Your task to perform on an android device: View the shopping cart on bestbuy. Search for dell alienware on bestbuy, select the first entry, and add it to the cart. Image 0: 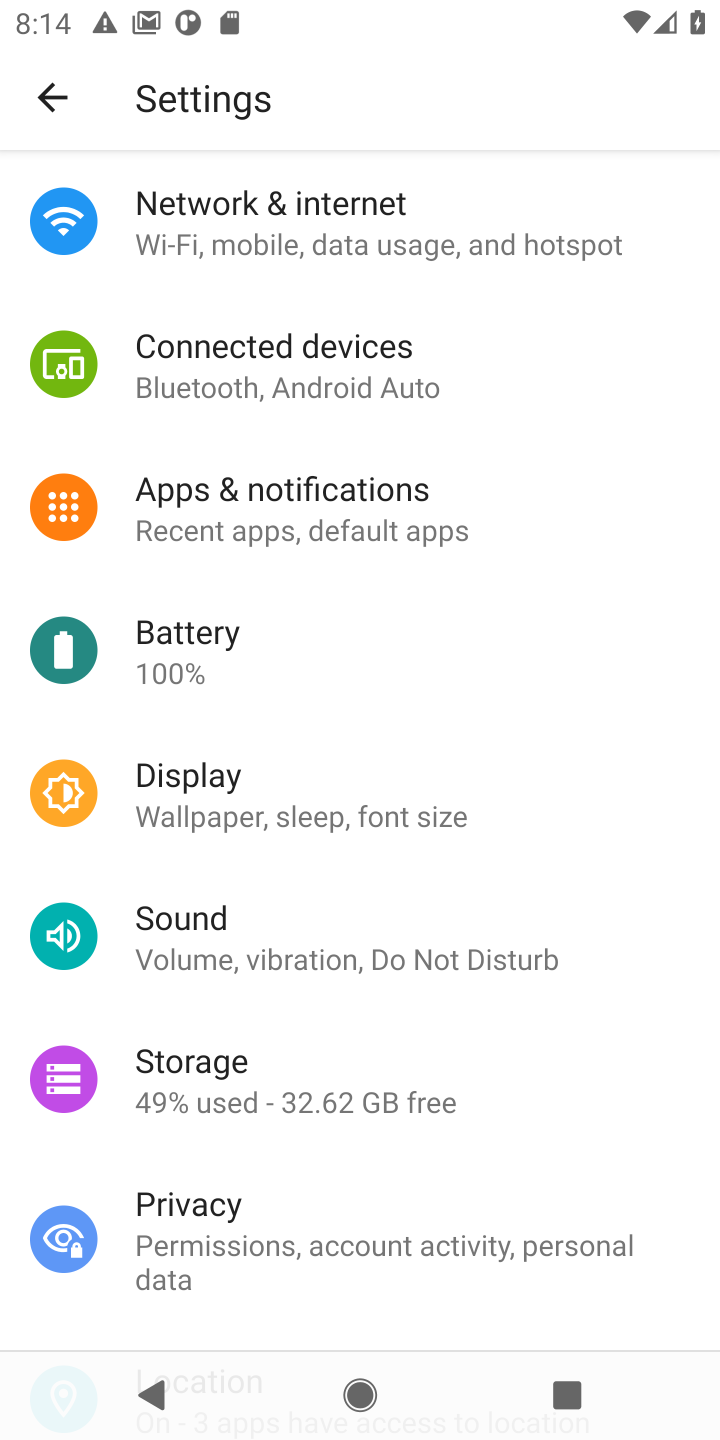
Step 0: press home button
Your task to perform on an android device: View the shopping cart on bestbuy. Search for dell alienware on bestbuy, select the first entry, and add it to the cart. Image 1: 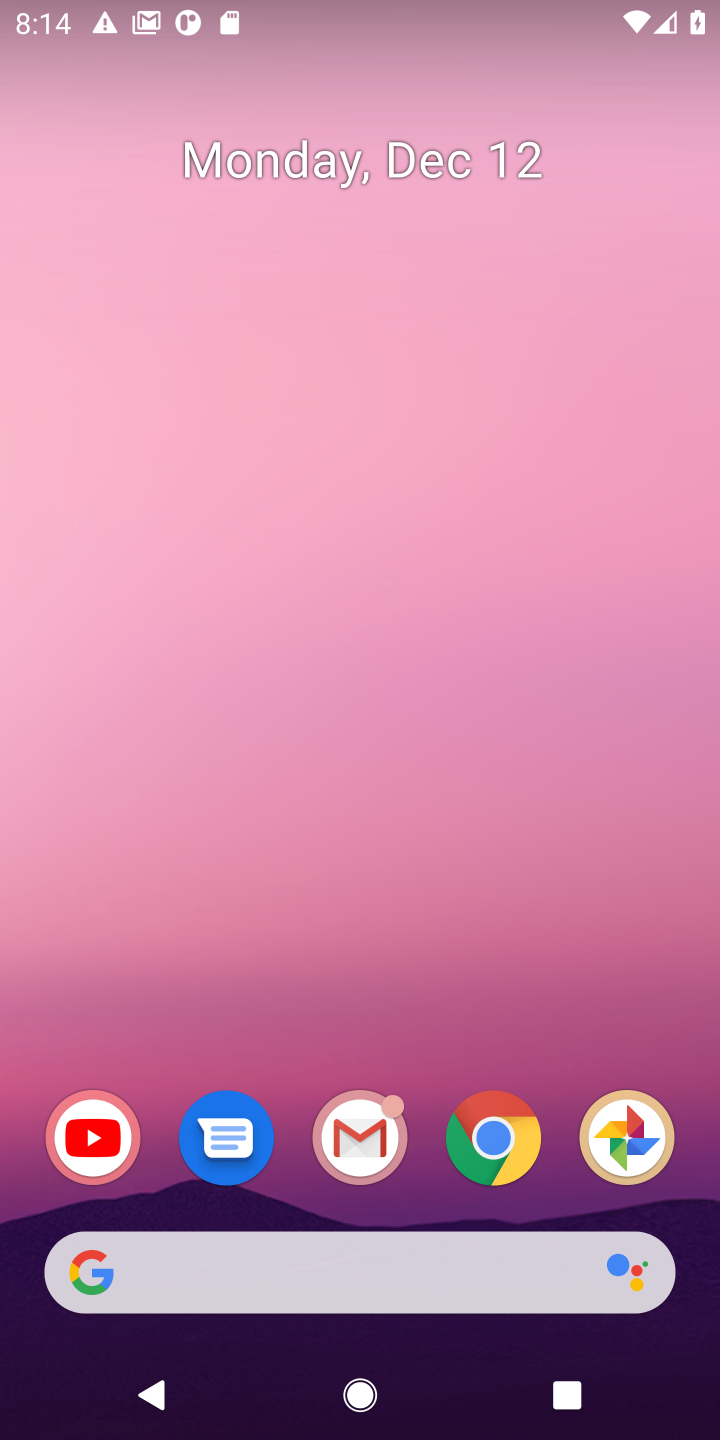
Step 1: drag from (407, 1248) to (474, 46)
Your task to perform on an android device: View the shopping cart on bestbuy. Search for dell alienware on bestbuy, select the first entry, and add it to the cart. Image 2: 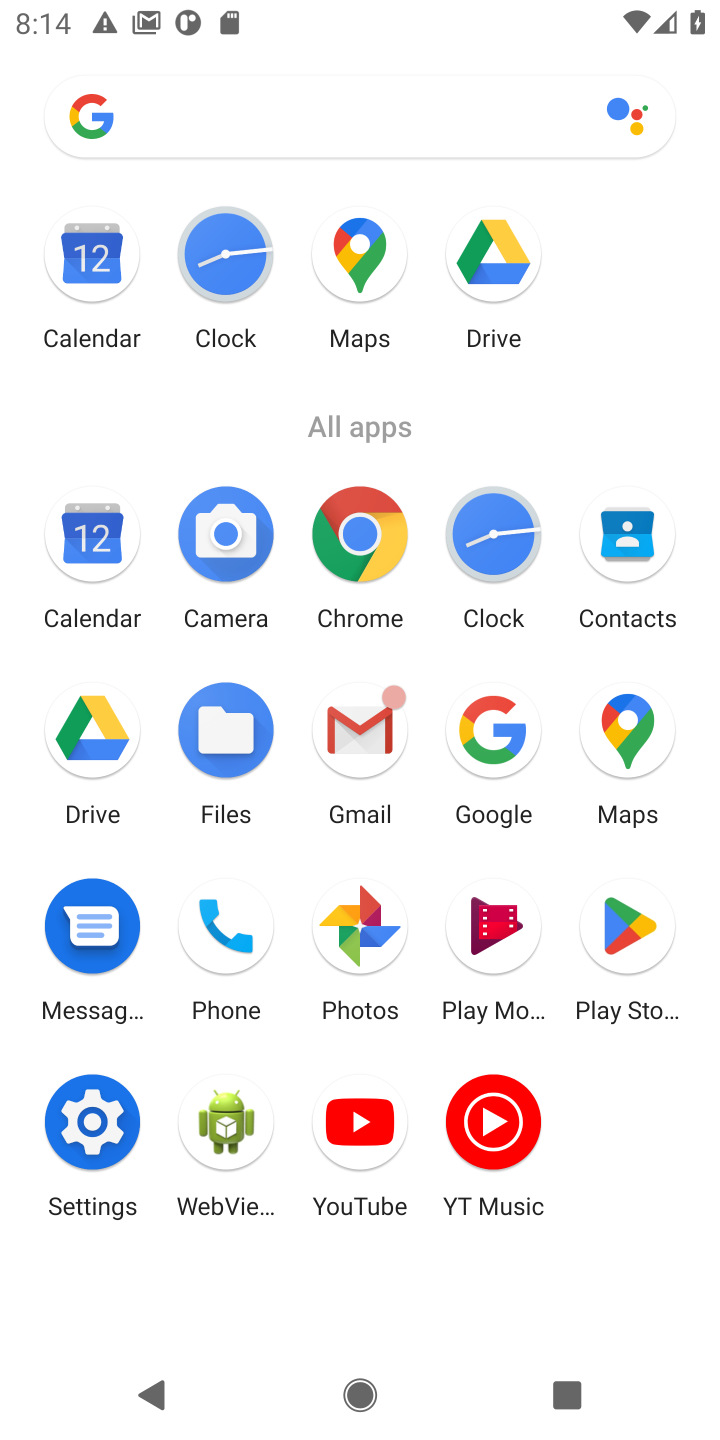
Step 2: click (496, 726)
Your task to perform on an android device: View the shopping cart on bestbuy. Search for dell alienware on bestbuy, select the first entry, and add it to the cart. Image 3: 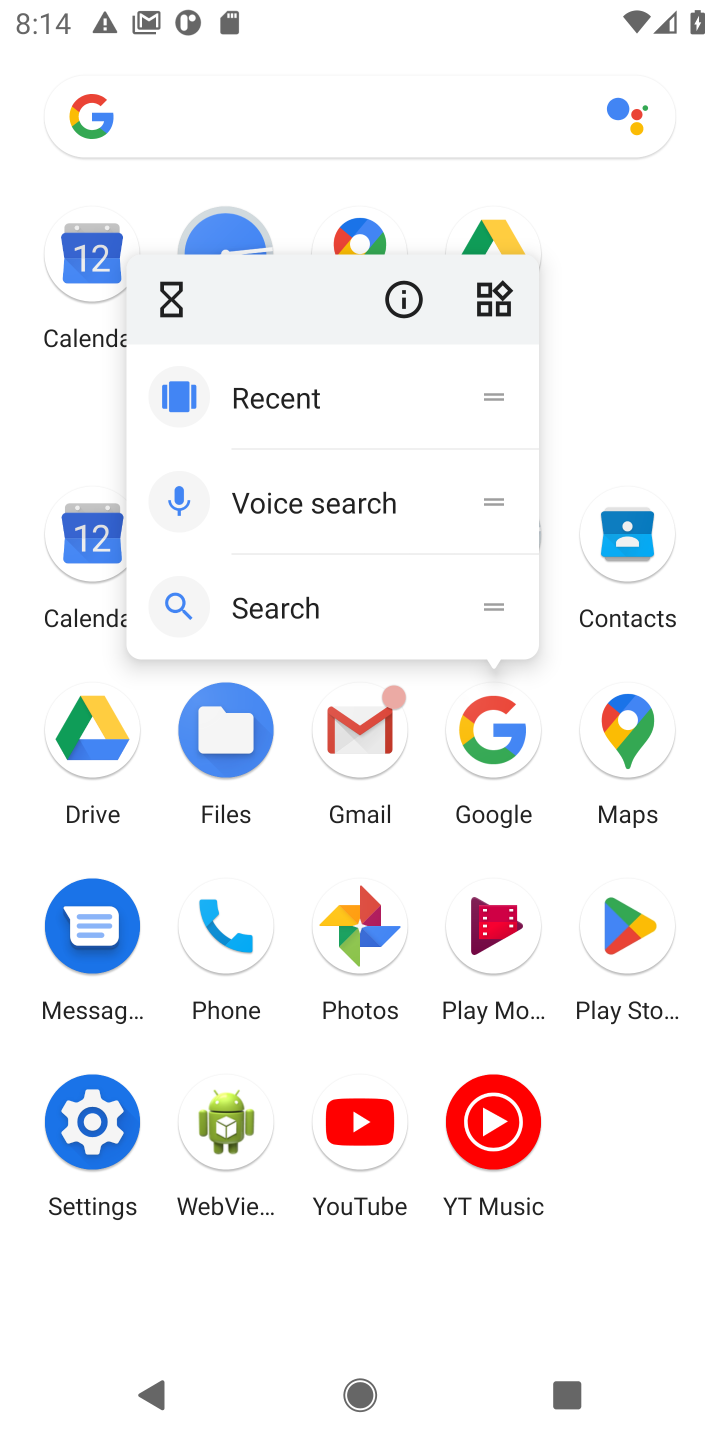
Step 3: click (500, 746)
Your task to perform on an android device: View the shopping cart on bestbuy. Search for dell alienware on bestbuy, select the first entry, and add it to the cart. Image 4: 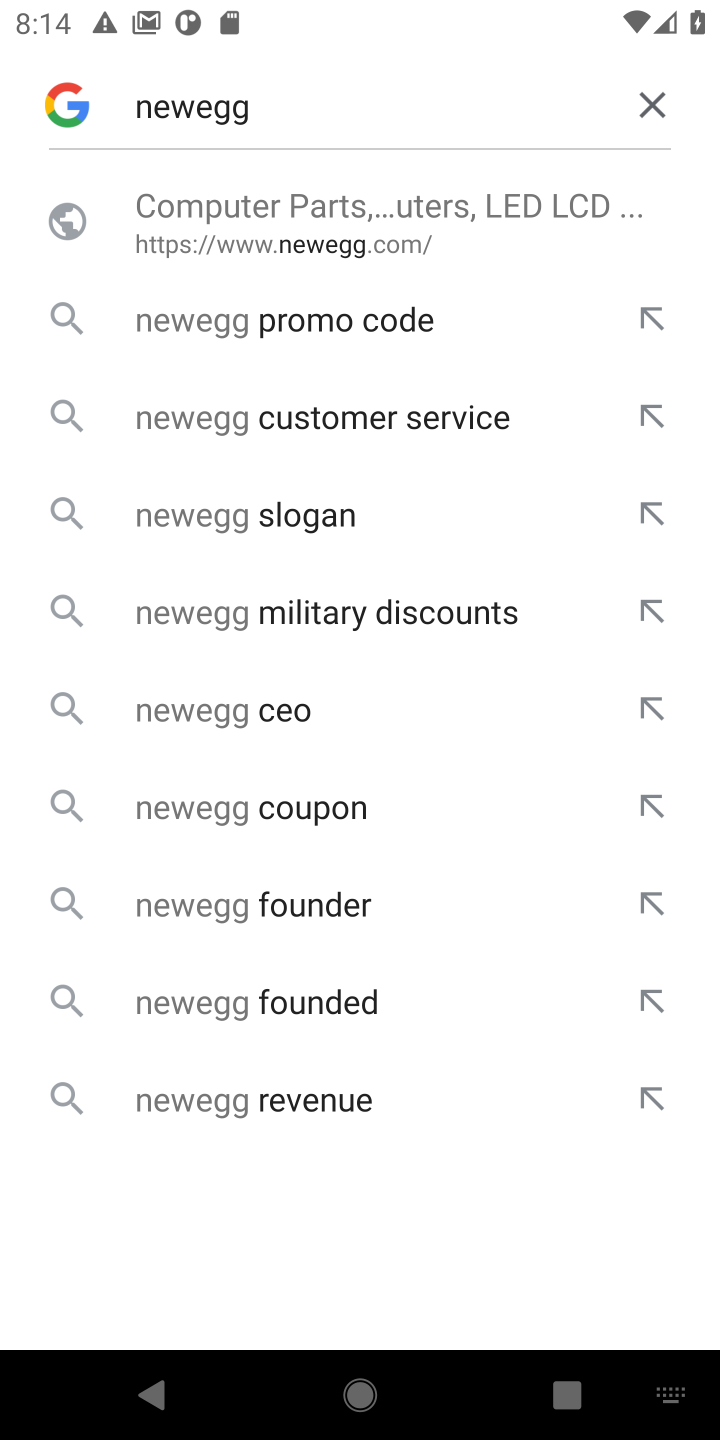
Step 4: click (663, 107)
Your task to perform on an android device: View the shopping cart on bestbuy. Search for dell alienware on bestbuy, select the first entry, and add it to the cart. Image 5: 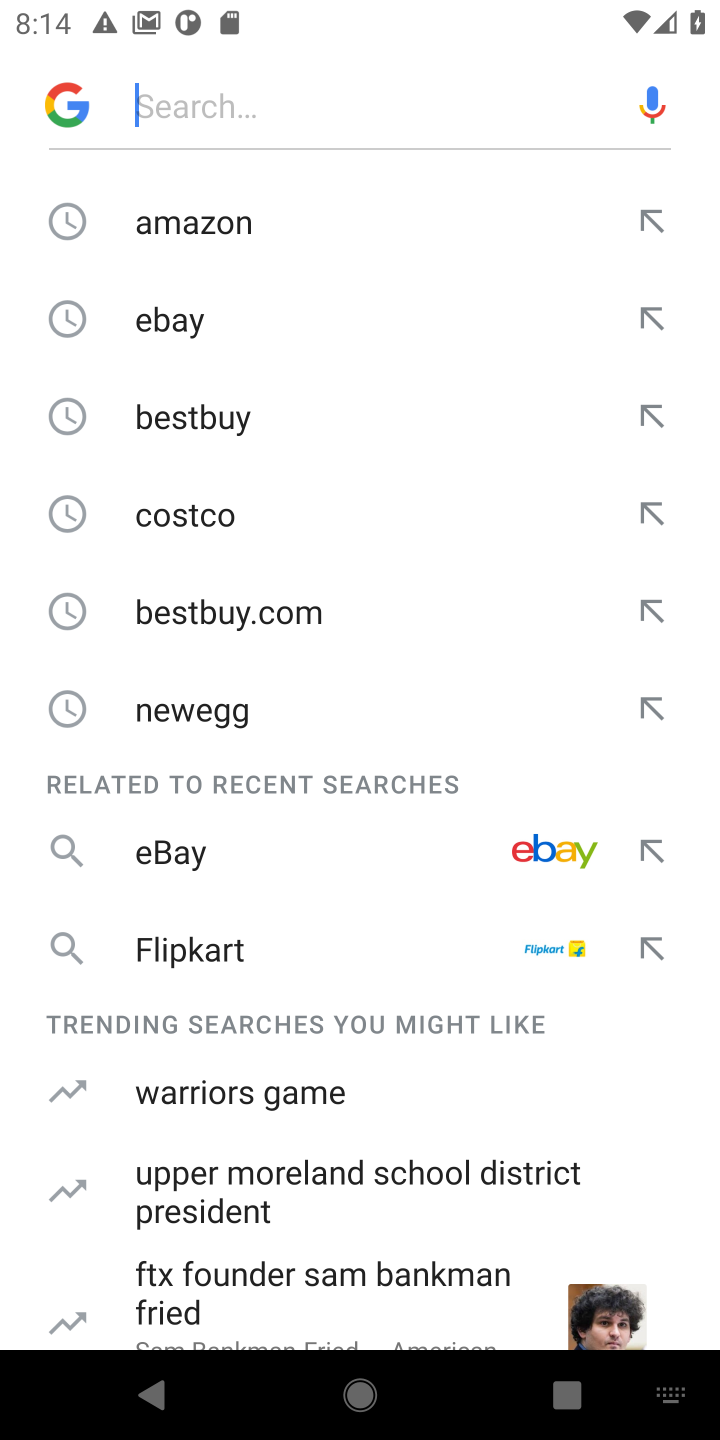
Step 5: click (186, 117)
Your task to perform on an android device: View the shopping cart on bestbuy. Search for dell alienware on bestbuy, select the first entry, and add it to the cart. Image 6: 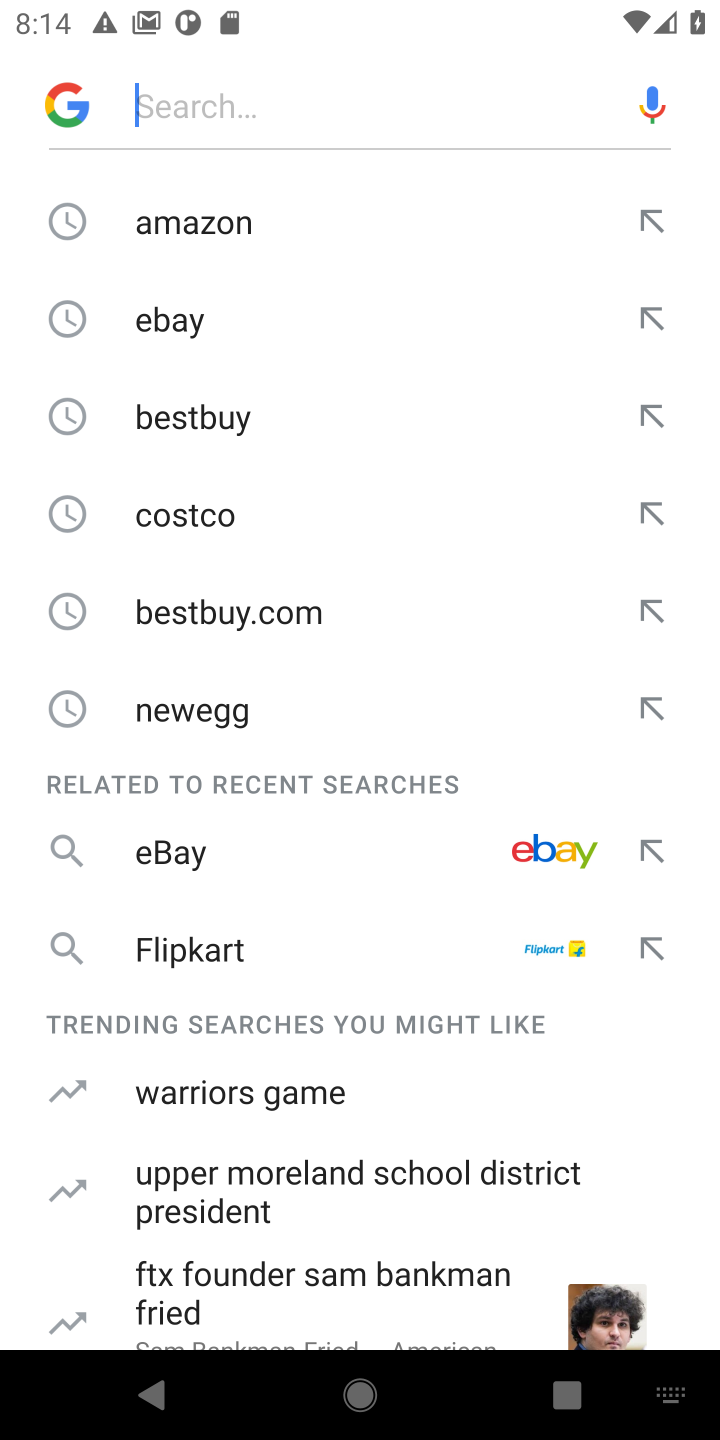
Step 6: click (271, 612)
Your task to perform on an android device: View the shopping cart on bestbuy. Search for dell alienware on bestbuy, select the first entry, and add it to the cart. Image 7: 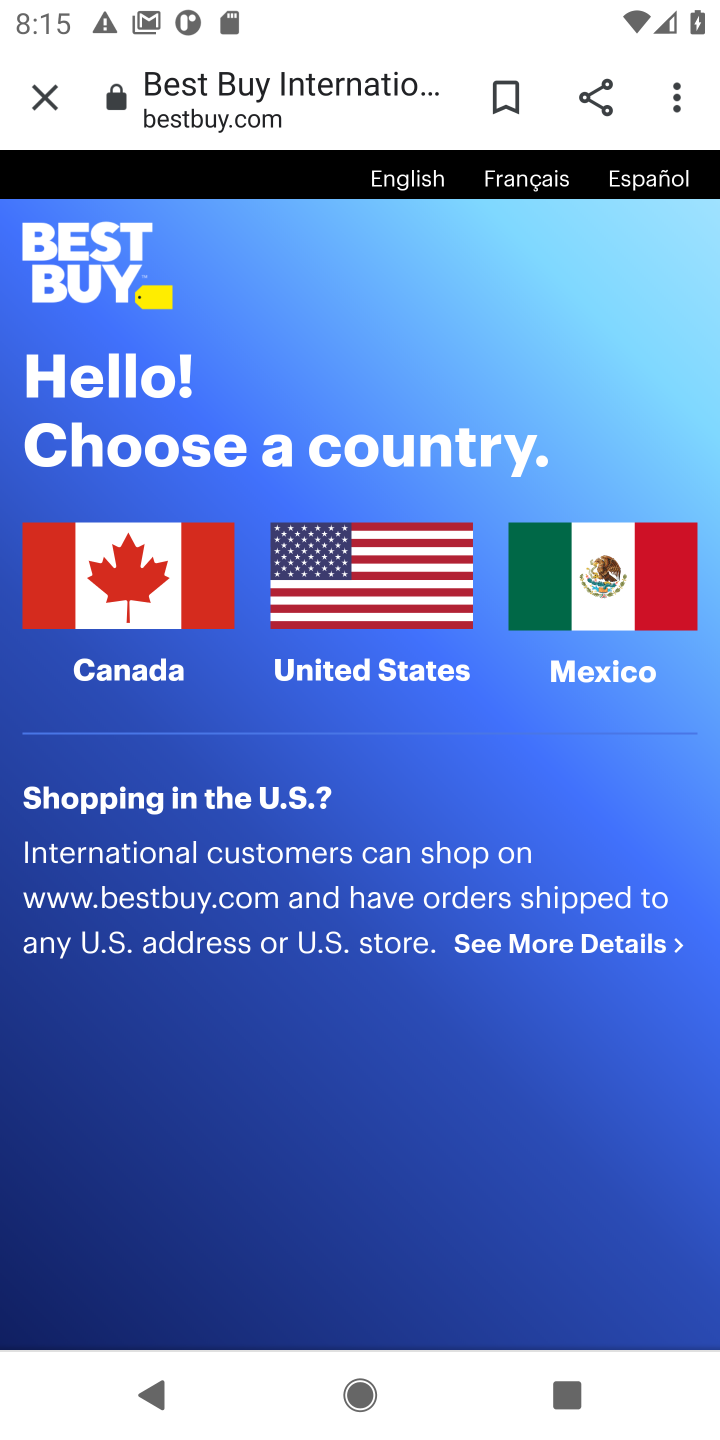
Step 7: click (379, 636)
Your task to perform on an android device: View the shopping cart on bestbuy. Search for dell alienware on bestbuy, select the first entry, and add it to the cart. Image 8: 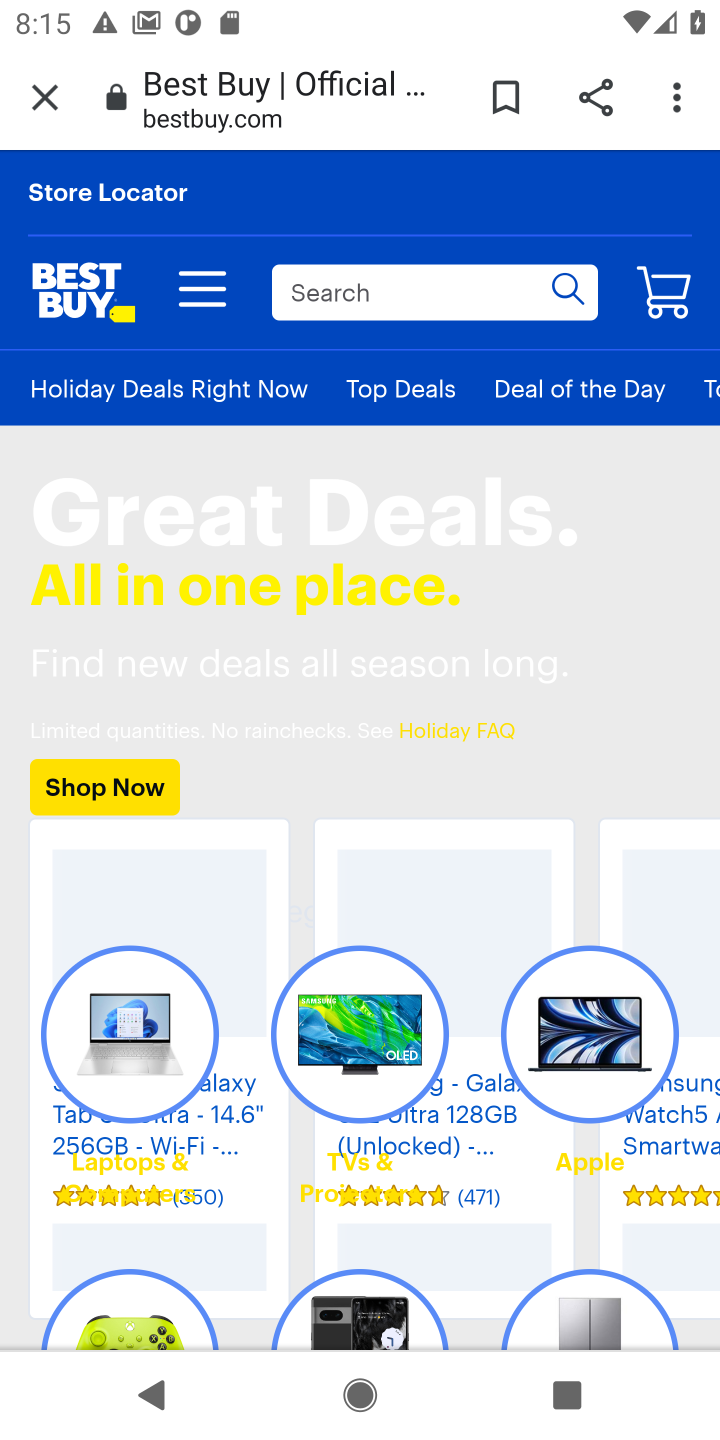
Step 8: click (657, 292)
Your task to perform on an android device: View the shopping cart on bestbuy. Search for dell alienware on bestbuy, select the first entry, and add it to the cart. Image 9: 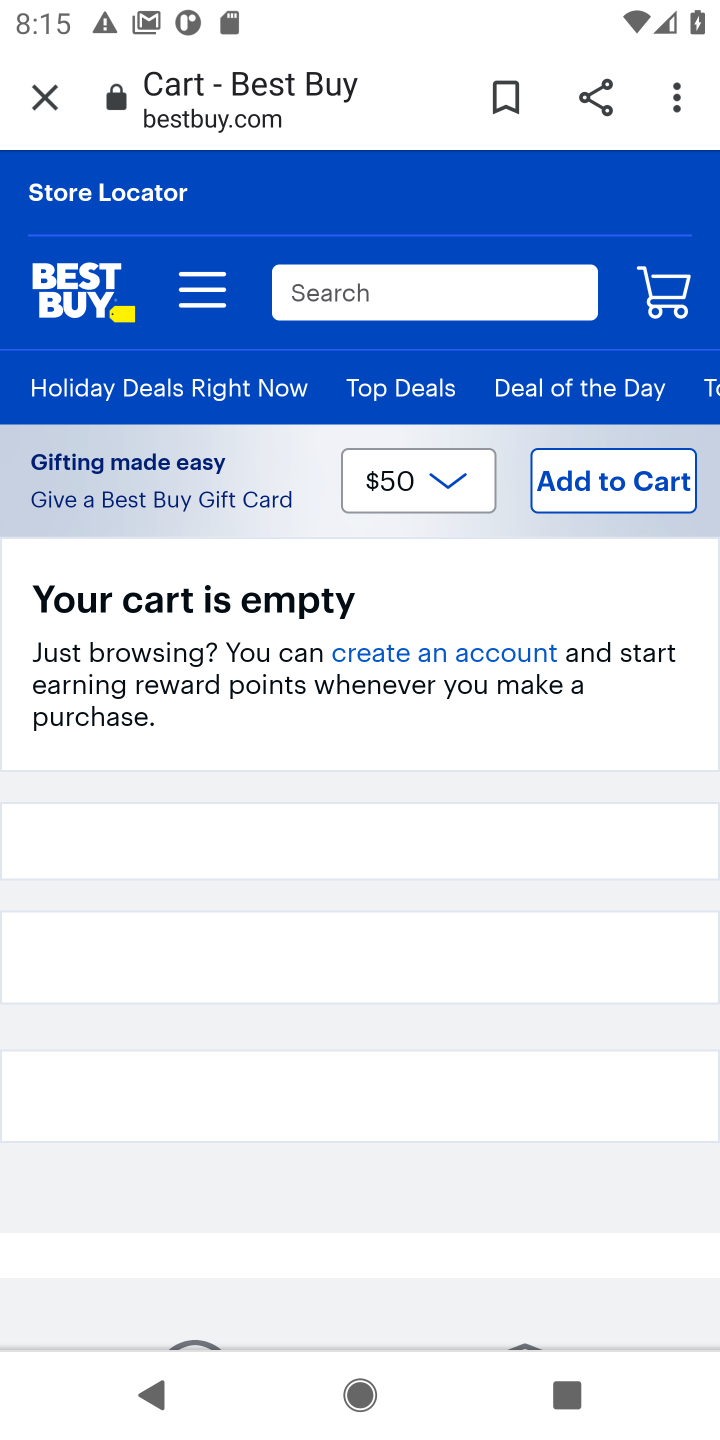
Step 9: click (406, 295)
Your task to perform on an android device: View the shopping cart on bestbuy. Search for dell alienware on bestbuy, select the first entry, and add it to the cart. Image 10: 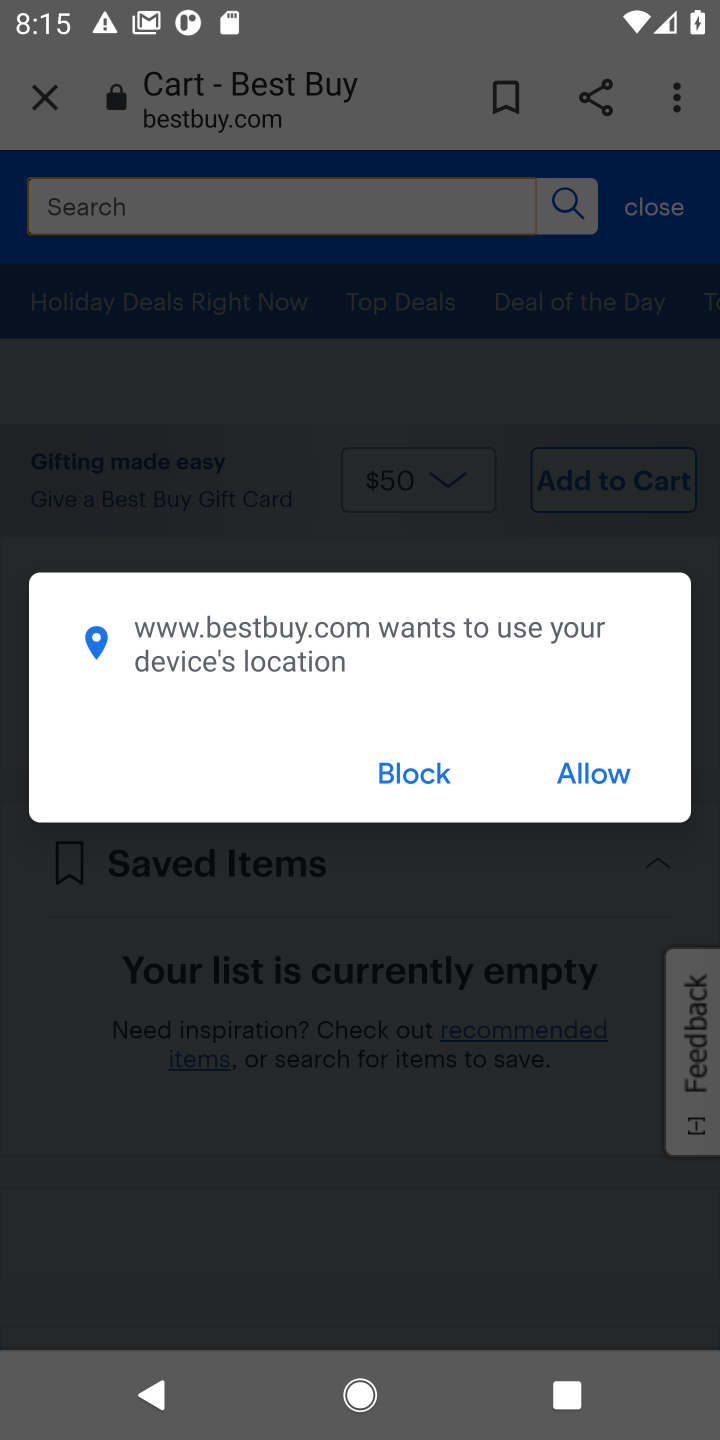
Step 10: type "dell alienwar"
Your task to perform on an android device: View the shopping cart on bestbuy. Search for dell alienware on bestbuy, select the first entry, and add it to the cart. Image 11: 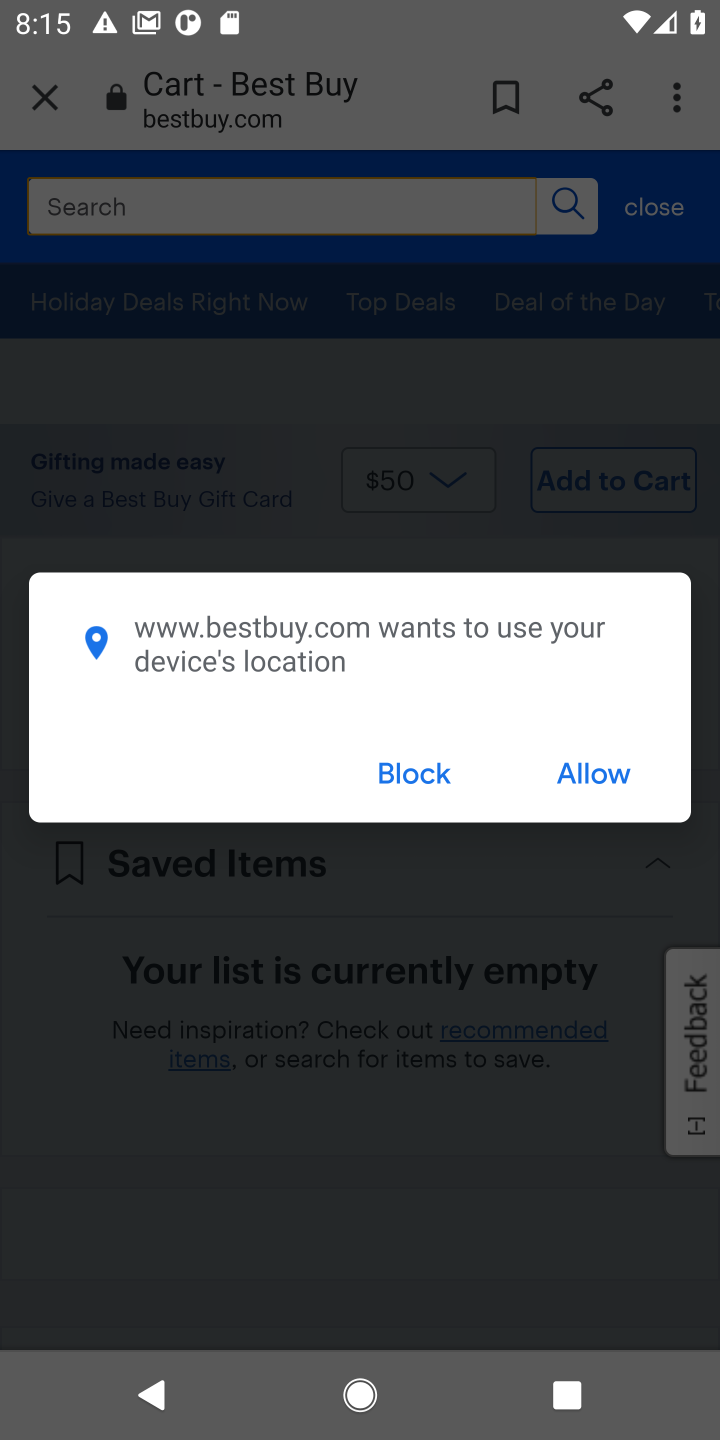
Step 11: click (573, 781)
Your task to perform on an android device: View the shopping cart on bestbuy. Search for dell alienware on bestbuy, select the first entry, and add it to the cart. Image 12: 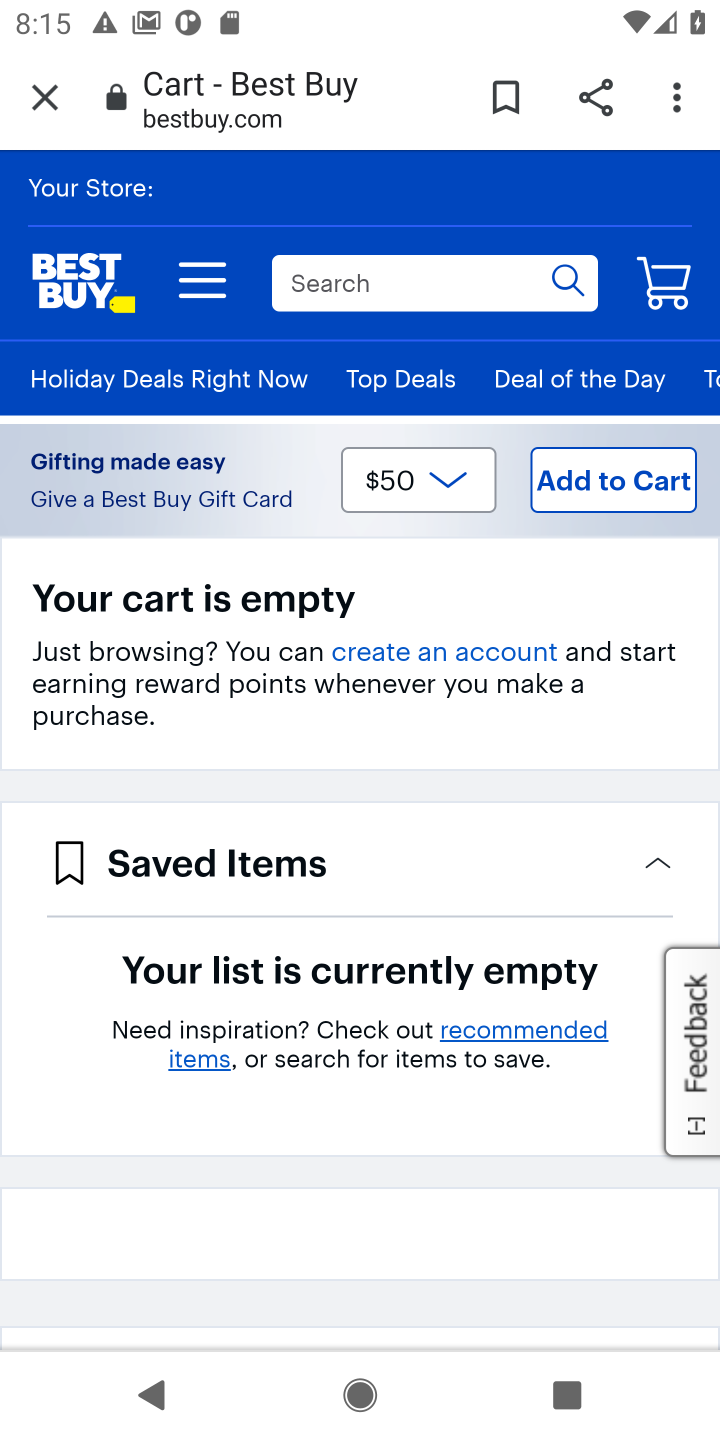
Step 12: click (581, 288)
Your task to perform on an android device: View the shopping cart on bestbuy. Search for dell alienware on bestbuy, select the first entry, and add it to the cart. Image 13: 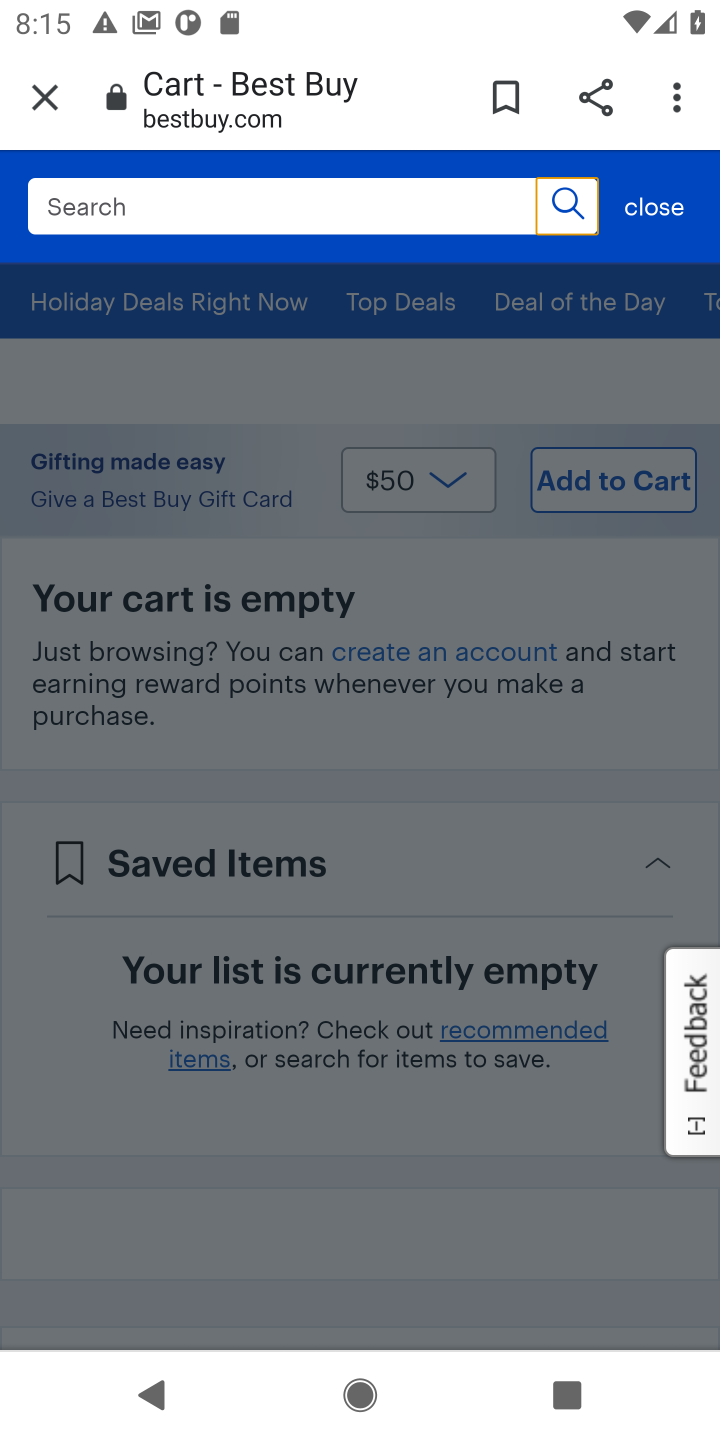
Step 13: click (128, 199)
Your task to perform on an android device: View the shopping cart on bestbuy. Search for dell alienware on bestbuy, select the first entry, and add it to the cart. Image 14: 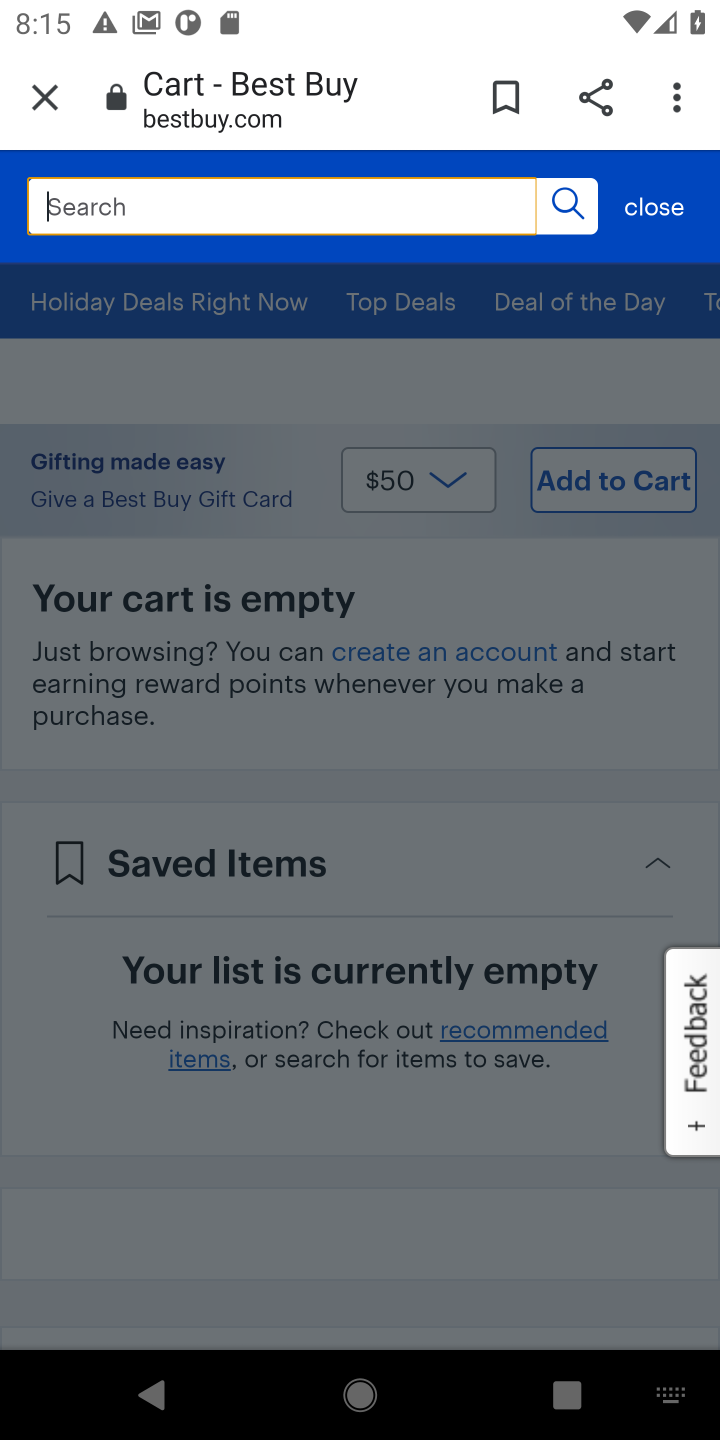
Step 14: type "dell alienwar"
Your task to perform on an android device: View the shopping cart on bestbuy. Search for dell alienware on bestbuy, select the first entry, and add it to the cart. Image 15: 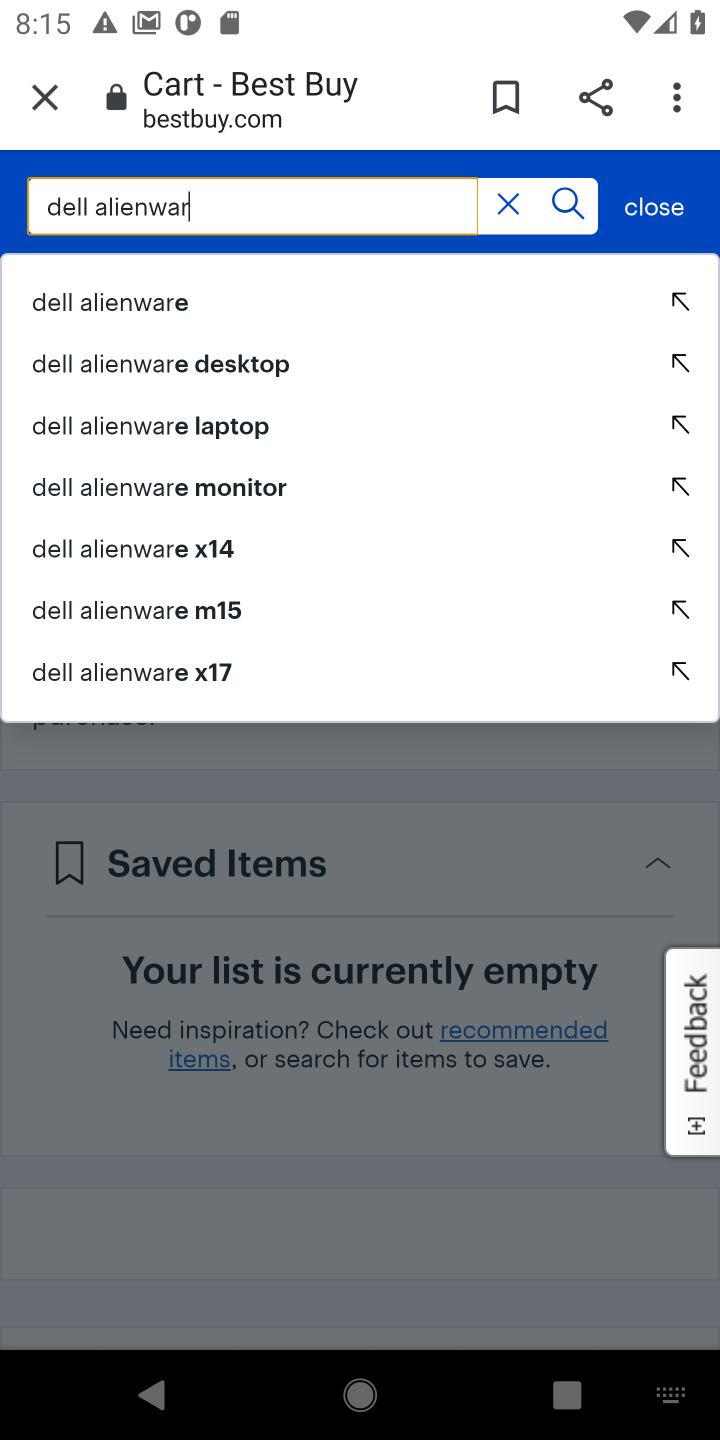
Step 15: click (147, 300)
Your task to perform on an android device: View the shopping cart on bestbuy. Search for dell alienware on bestbuy, select the first entry, and add it to the cart. Image 16: 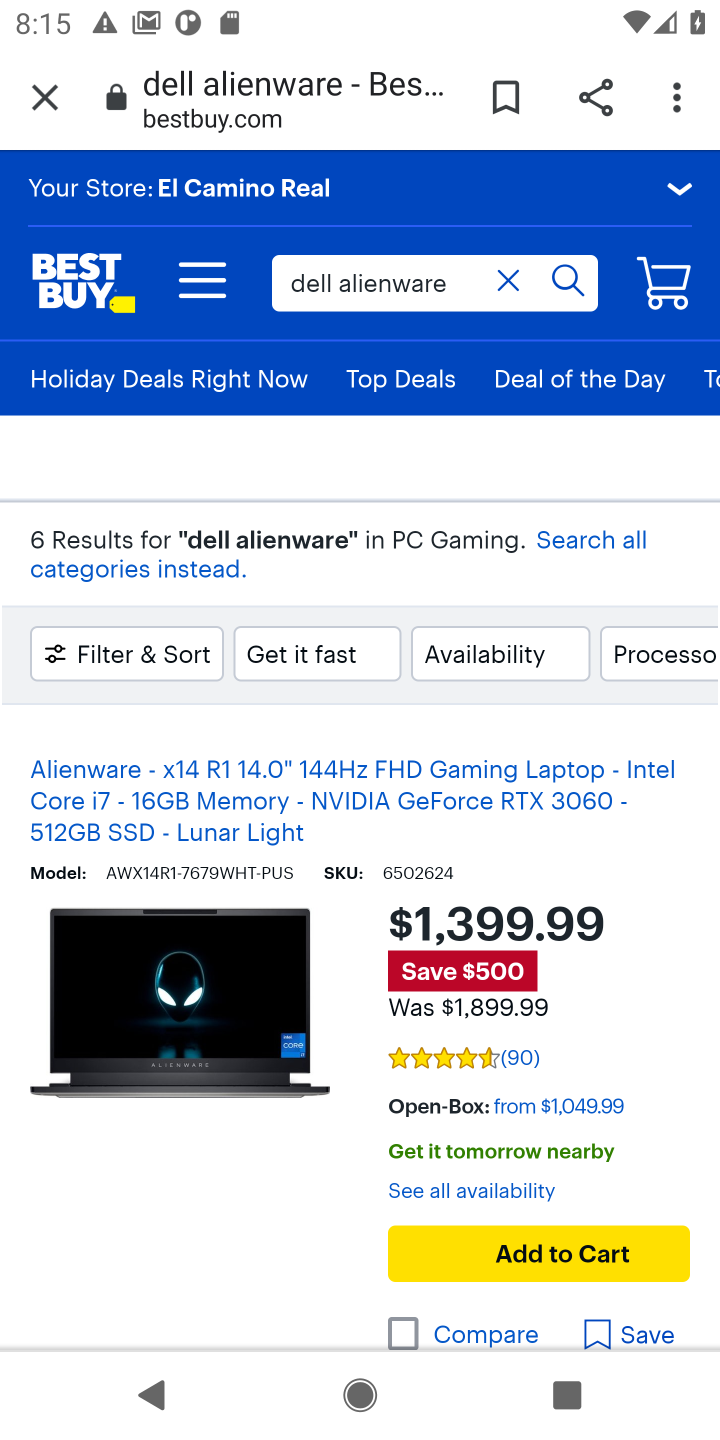
Step 16: drag from (276, 1199) to (394, 456)
Your task to perform on an android device: View the shopping cart on bestbuy. Search for dell alienware on bestbuy, select the first entry, and add it to the cart. Image 17: 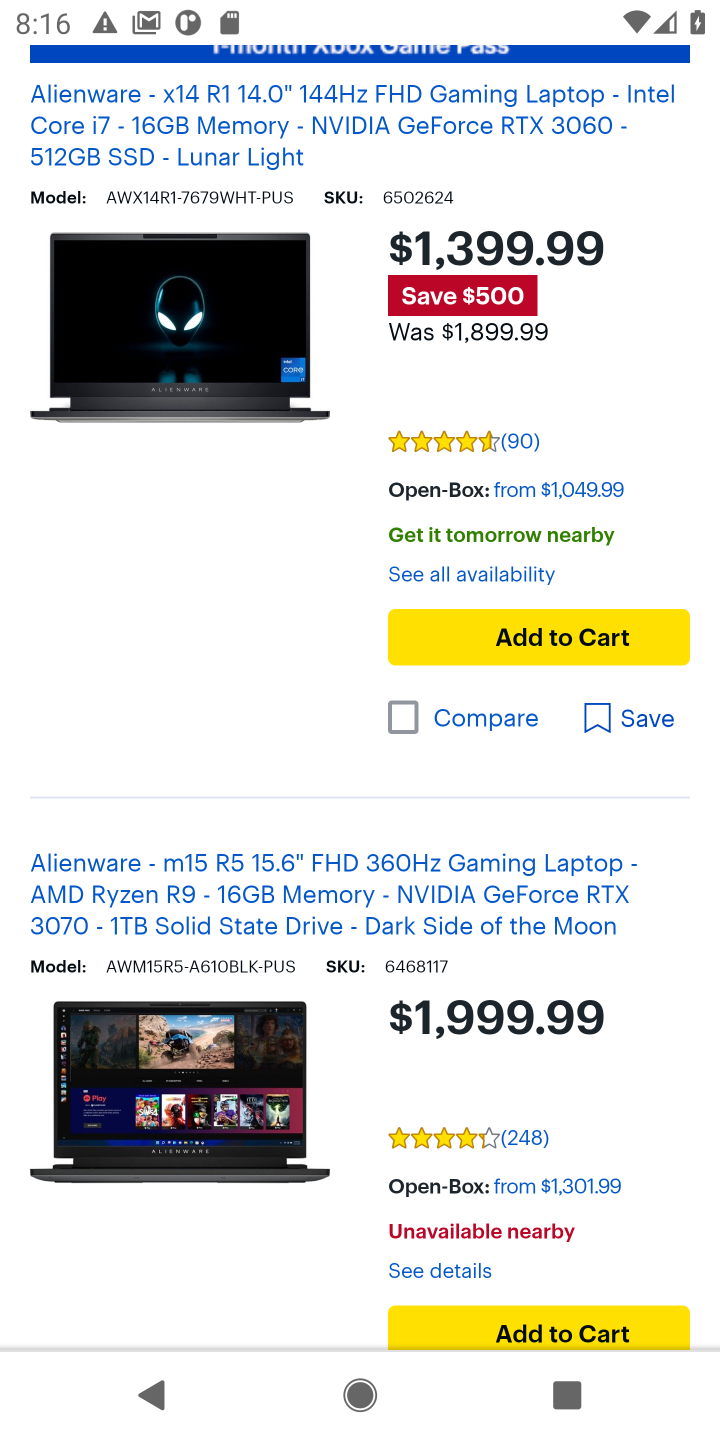
Step 17: click (557, 498)
Your task to perform on an android device: View the shopping cart on bestbuy. Search for dell alienware on bestbuy, select the first entry, and add it to the cart. Image 18: 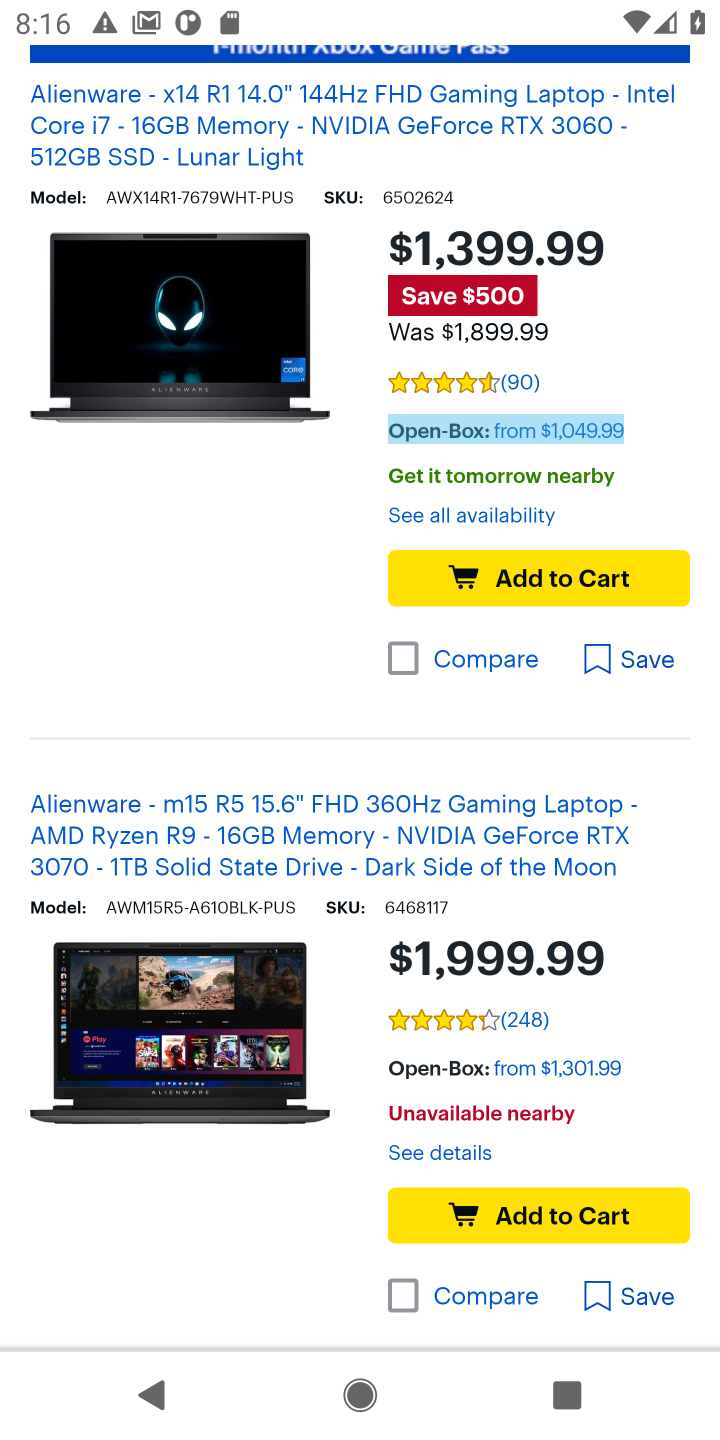
Step 18: click (563, 639)
Your task to perform on an android device: View the shopping cart on bestbuy. Search for dell alienware on bestbuy, select the first entry, and add it to the cart. Image 19: 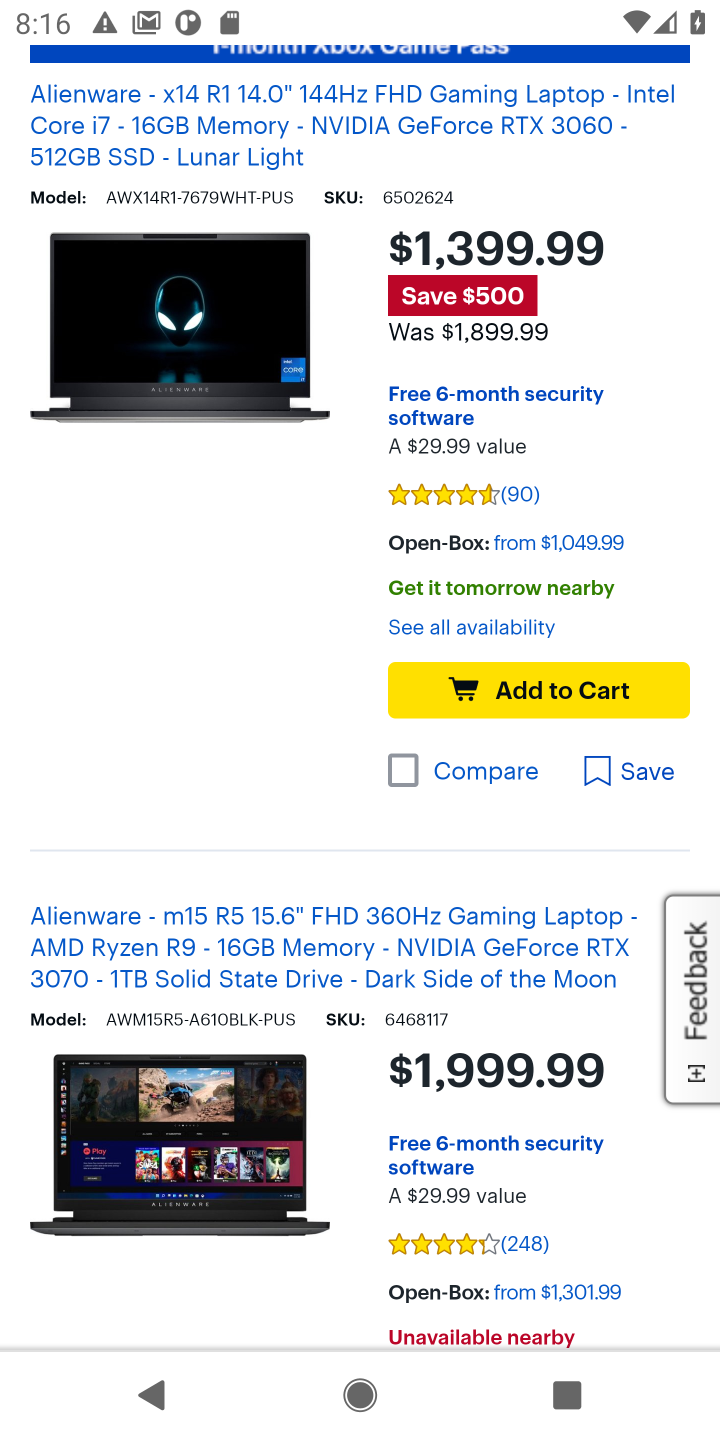
Step 19: click (545, 692)
Your task to perform on an android device: View the shopping cart on bestbuy. Search for dell alienware on bestbuy, select the first entry, and add it to the cart. Image 20: 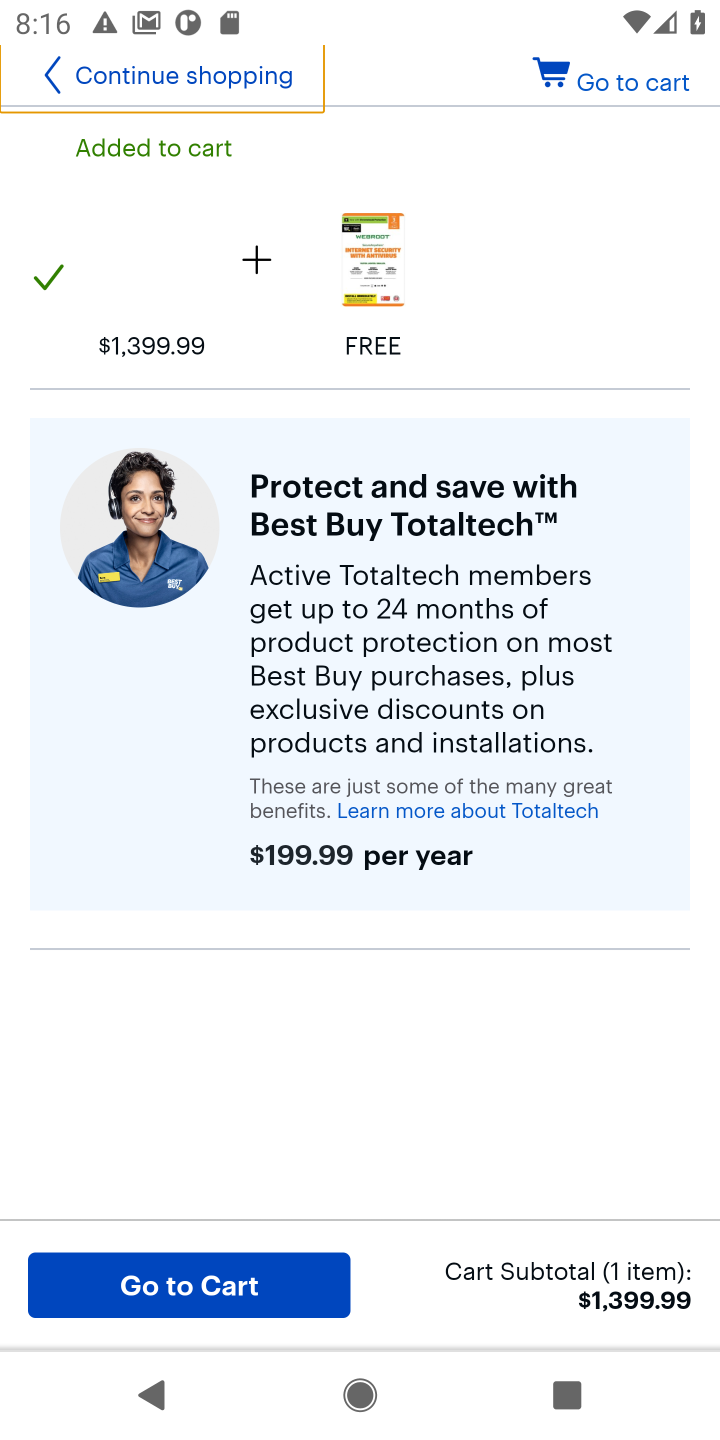
Step 20: click (176, 1278)
Your task to perform on an android device: View the shopping cart on bestbuy. Search for dell alienware on bestbuy, select the first entry, and add it to the cart. Image 21: 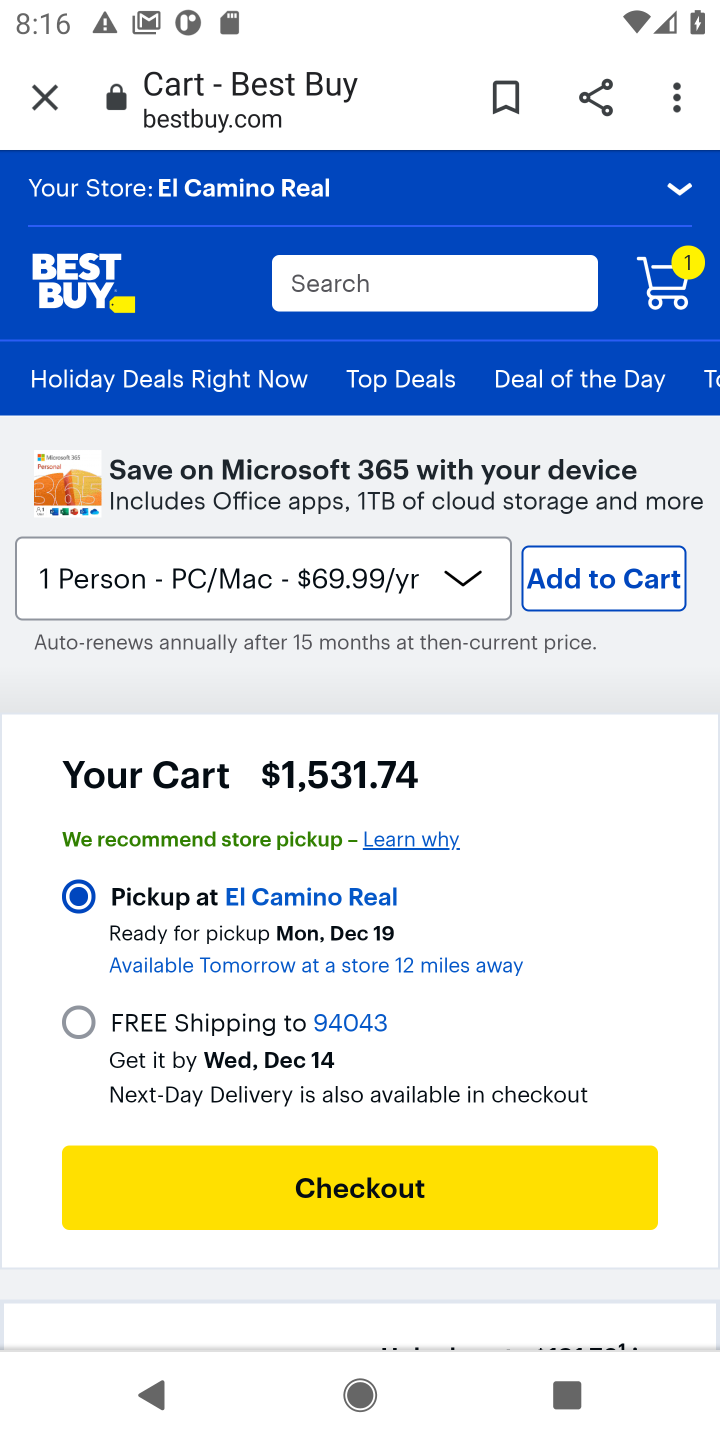
Step 21: click (672, 285)
Your task to perform on an android device: View the shopping cart on bestbuy. Search for dell alienware on bestbuy, select the first entry, and add it to the cart. Image 22: 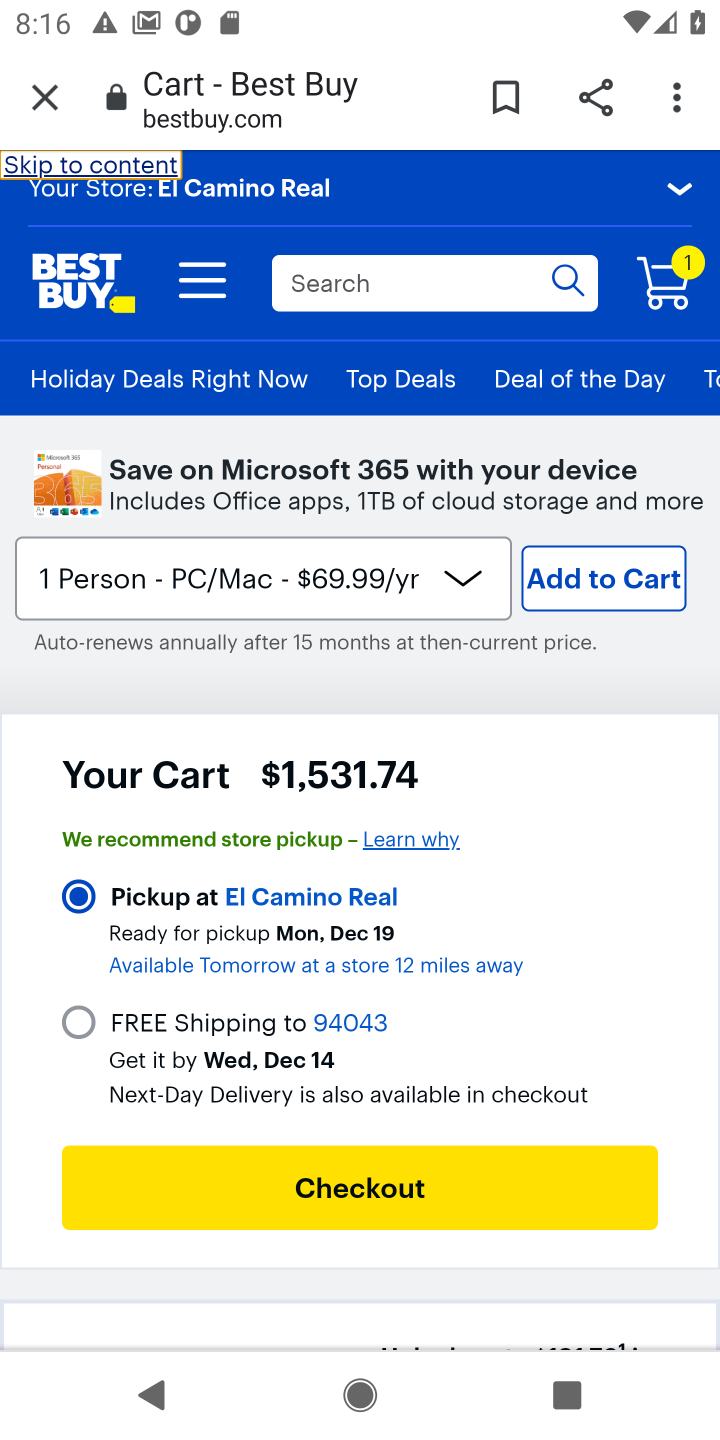
Step 22: click (315, 1194)
Your task to perform on an android device: View the shopping cart on bestbuy. Search for dell alienware on bestbuy, select the first entry, and add it to the cart. Image 23: 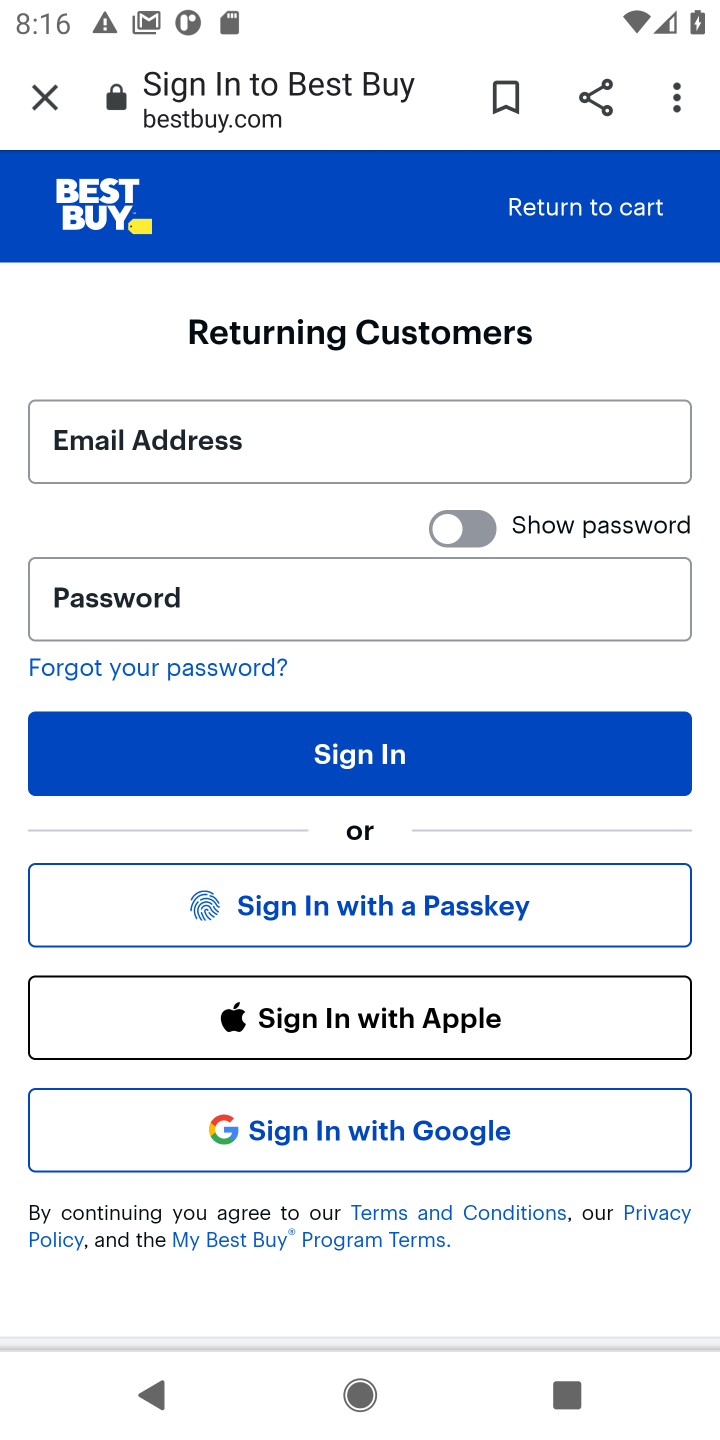
Step 23: task complete